Your task to perform on an android device: Is it going to rain this weekend? Image 0: 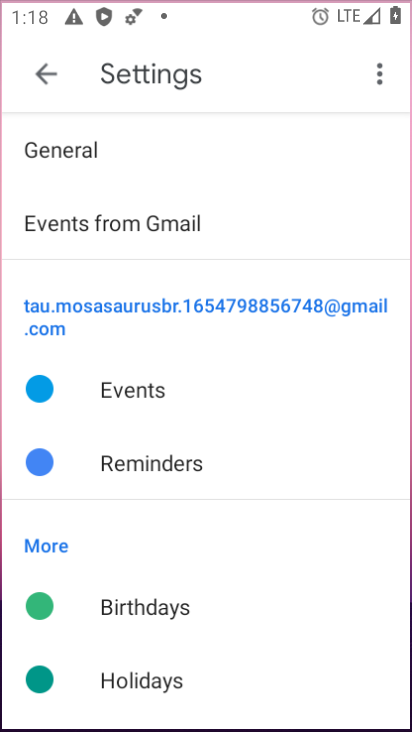
Step 0: press home button
Your task to perform on an android device: Is it going to rain this weekend? Image 1: 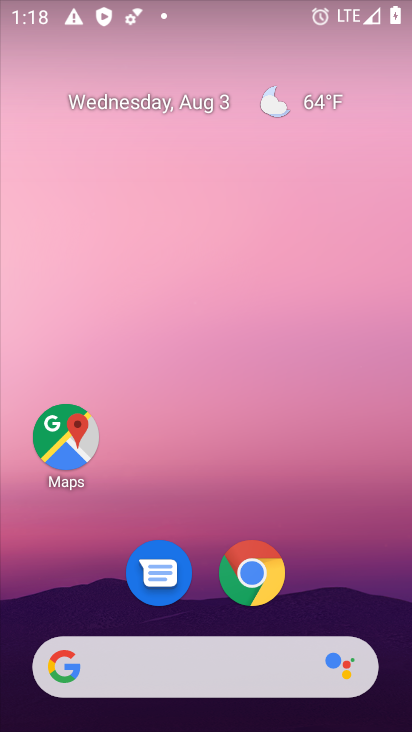
Step 1: drag from (209, 631) to (244, 50)
Your task to perform on an android device: Is it going to rain this weekend? Image 2: 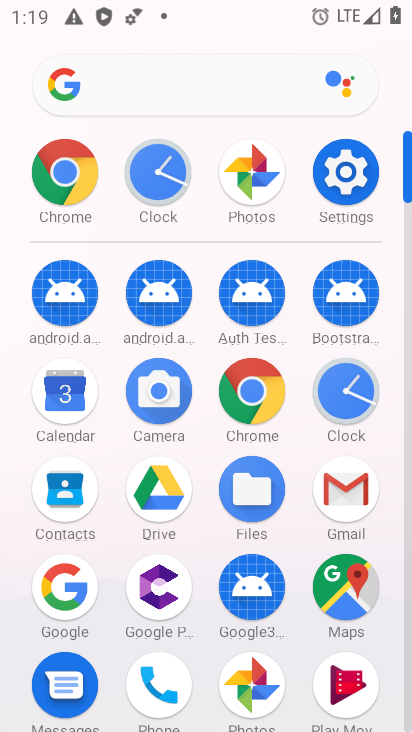
Step 2: drag from (235, 515) to (307, 66)
Your task to perform on an android device: Is it going to rain this weekend? Image 3: 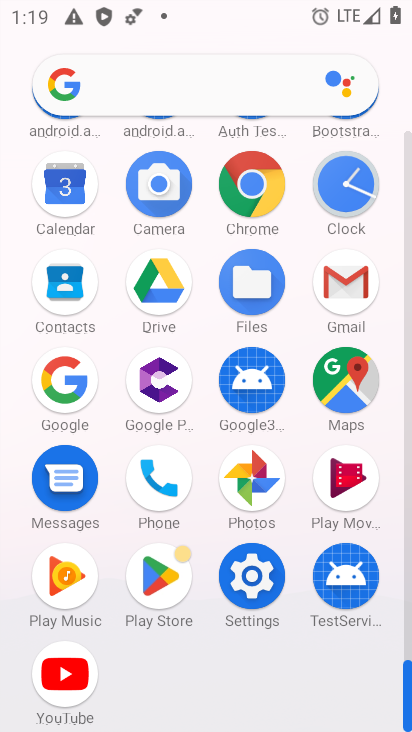
Step 3: click (76, 381)
Your task to perform on an android device: Is it going to rain this weekend? Image 4: 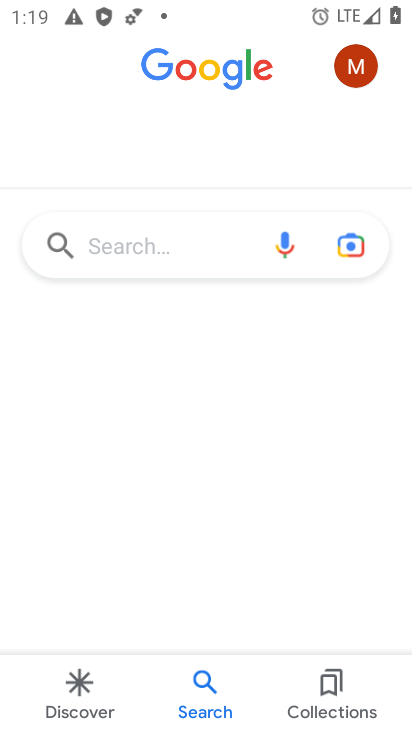
Step 4: click (166, 252)
Your task to perform on an android device: Is it going to rain this weekend? Image 5: 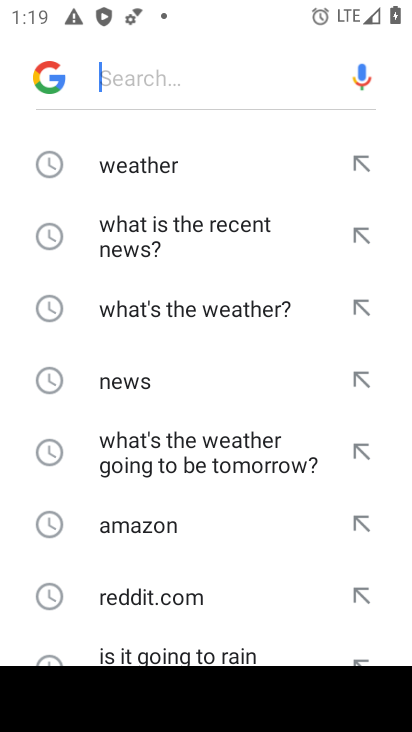
Step 5: click (175, 167)
Your task to perform on an android device: Is it going to rain this weekend? Image 6: 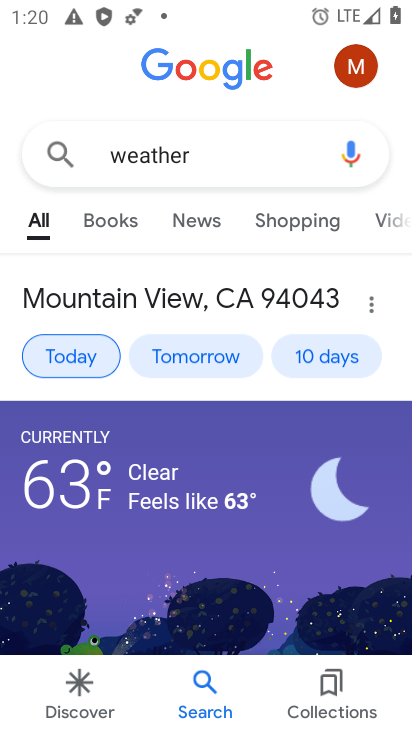
Step 6: click (329, 362)
Your task to perform on an android device: Is it going to rain this weekend? Image 7: 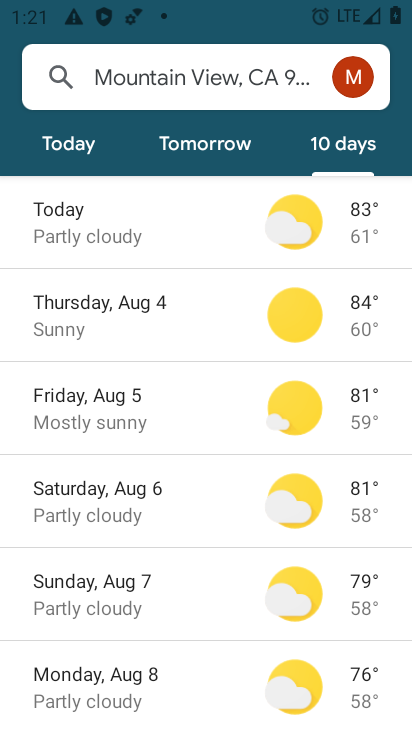
Step 7: task complete